Your task to perform on an android device: Go to eBay Image 0: 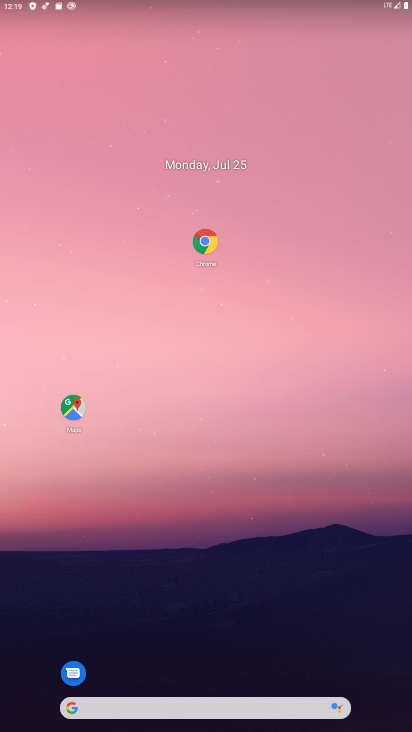
Step 0: drag from (256, 692) to (273, 12)
Your task to perform on an android device: Go to eBay Image 1: 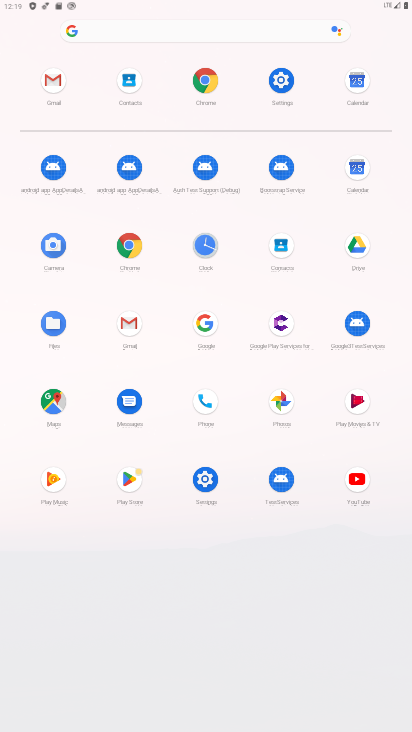
Step 1: click (129, 245)
Your task to perform on an android device: Go to eBay Image 2: 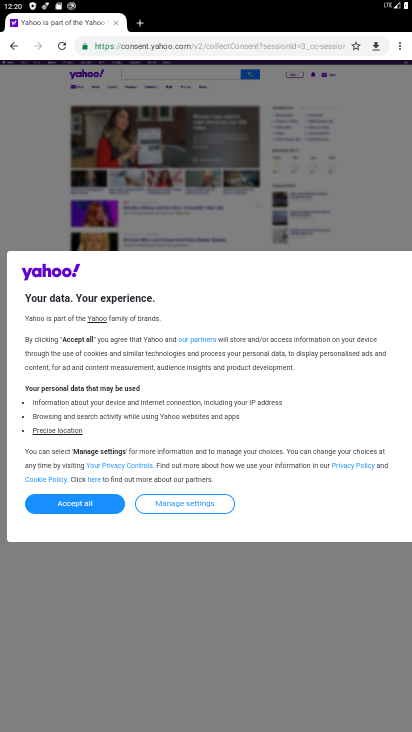
Step 2: click (207, 50)
Your task to perform on an android device: Go to eBay Image 3: 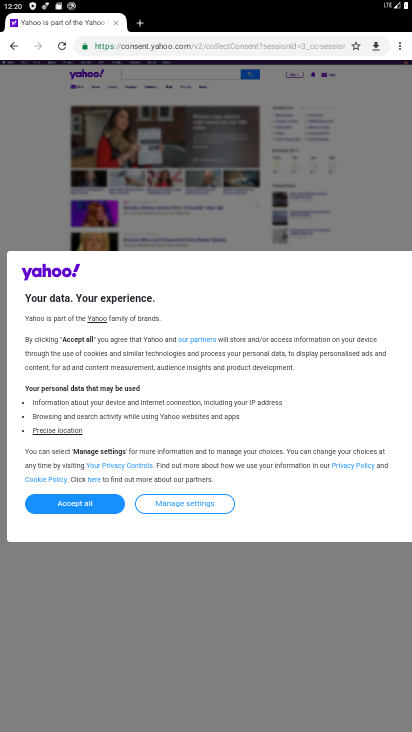
Step 3: click (207, 50)
Your task to perform on an android device: Go to eBay Image 4: 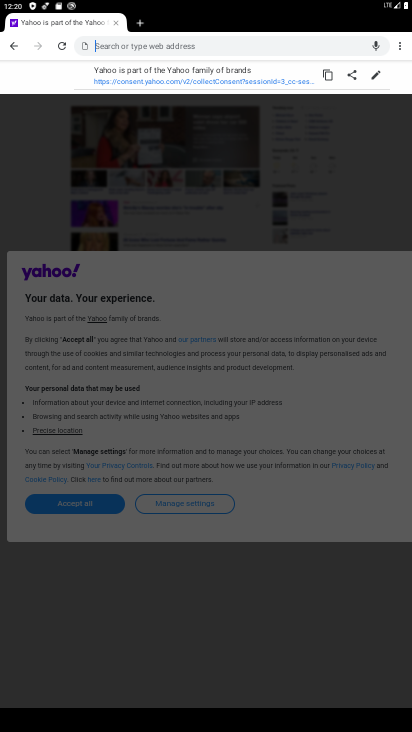
Step 4: type "ebay"
Your task to perform on an android device: Go to eBay Image 5: 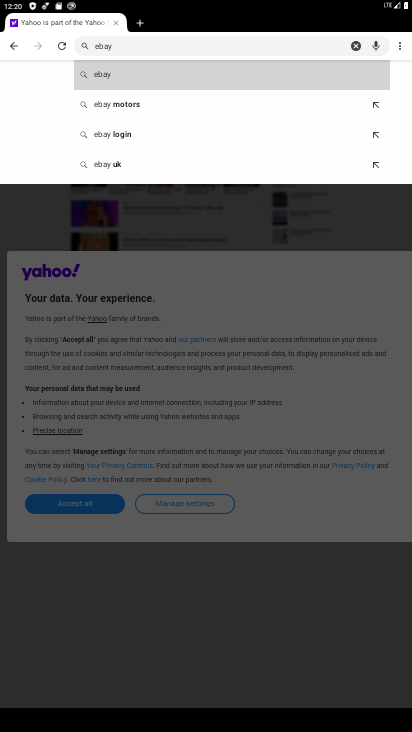
Step 5: click (164, 72)
Your task to perform on an android device: Go to eBay Image 6: 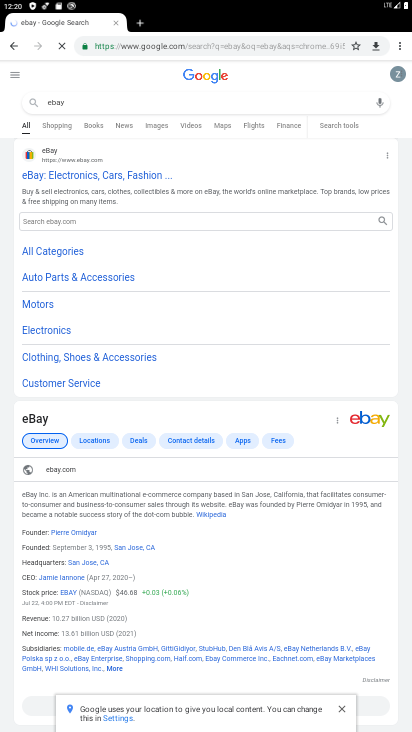
Step 6: task complete